Your task to perform on an android device: Open eBay Image 0: 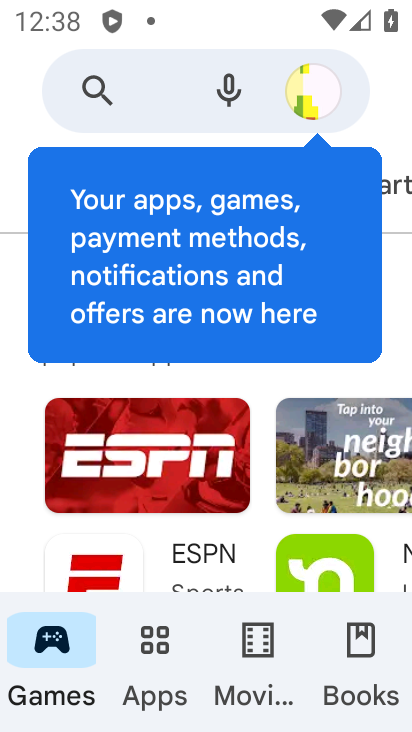
Step 0: press home button
Your task to perform on an android device: Open eBay Image 1: 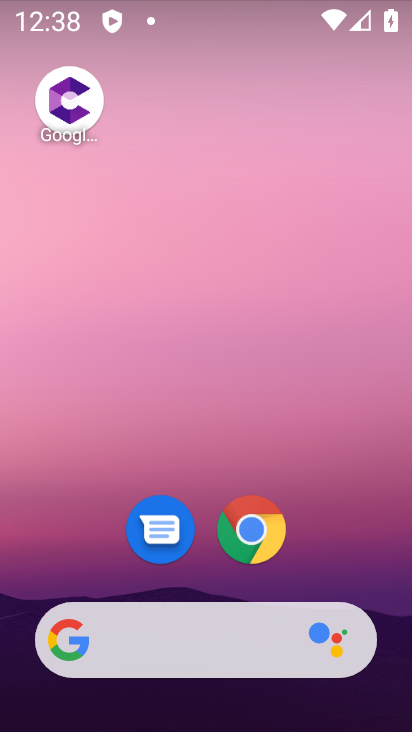
Step 1: drag from (323, 552) to (313, 178)
Your task to perform on an android device: Open eBay Image 2: 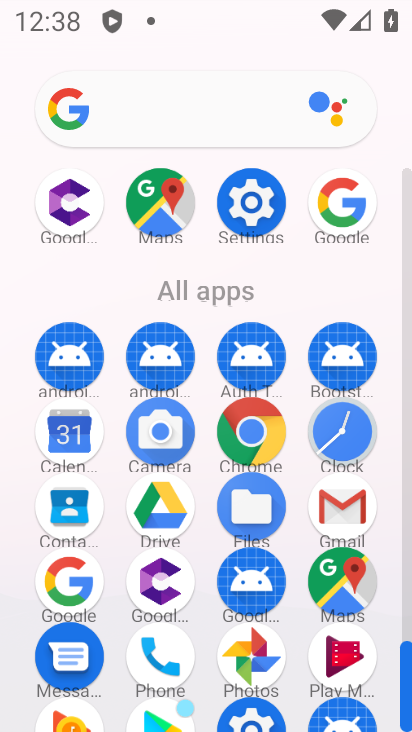
Step 2: click (243, 435)
Your task to perform on an android device: Open eBay Image 3: 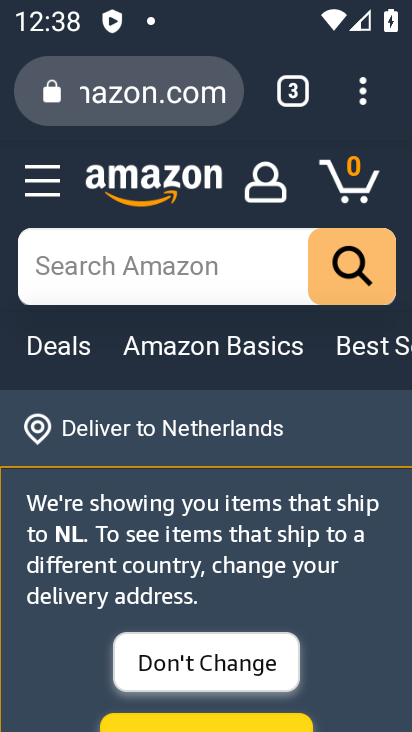
Step 3: click (366, 102)
Your task to perform on an android device: Open eBay Image 4: 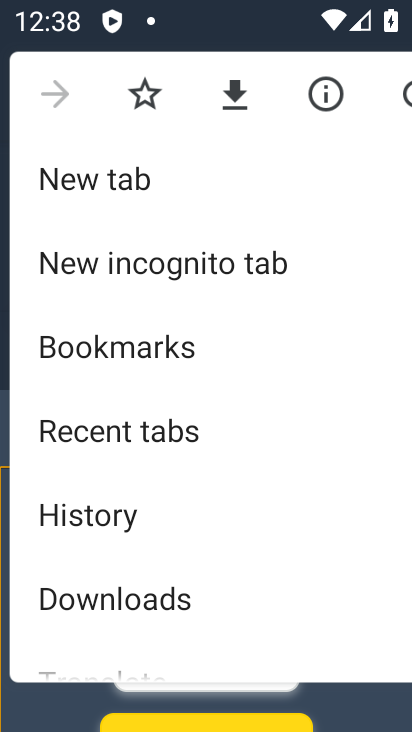
Step 4: click (108, 176)
Your task to perform on an android device: Open eBay Image 5: 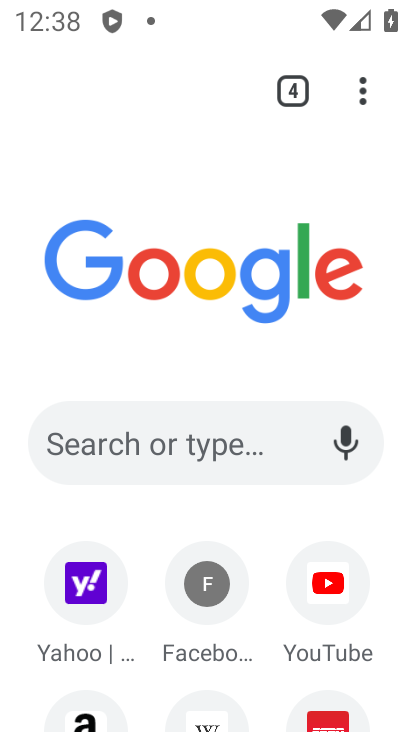
Step 5: click (175, 437)
Your task to perform on an android device: Open eBay Image 6: 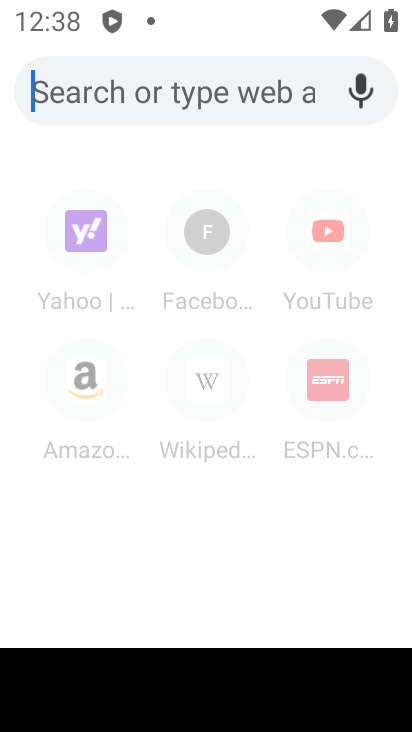
Step 6: type "eBay"
Your task to perform on an android device: Open eBay Image 7: 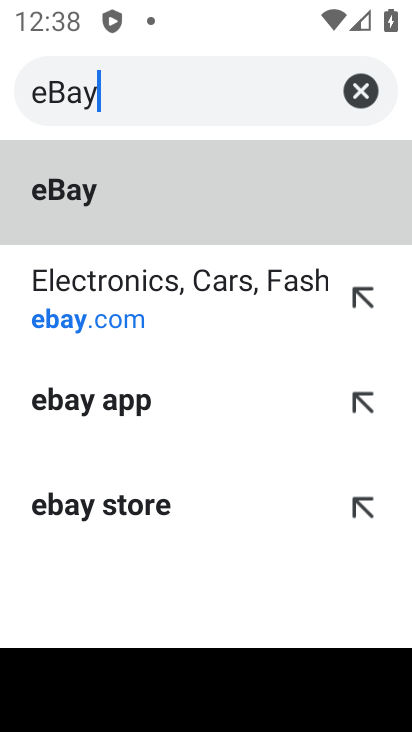
Step 7: click (300, 184)
Your task to perform on an android device: Open eBay Image 8: 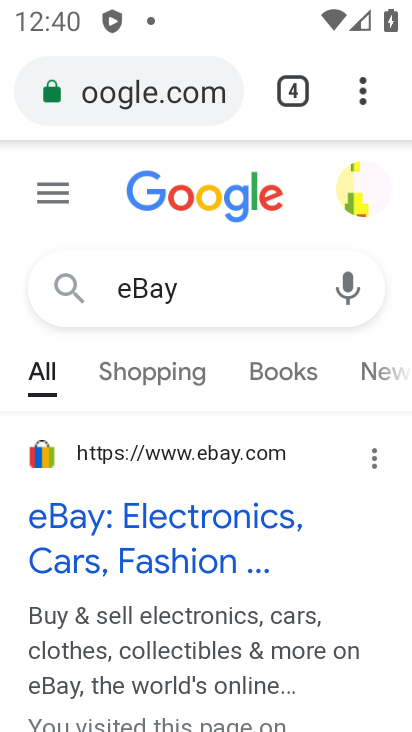
Step 8: task complete